Your task to perform on an android device: Open display settings Image 0: 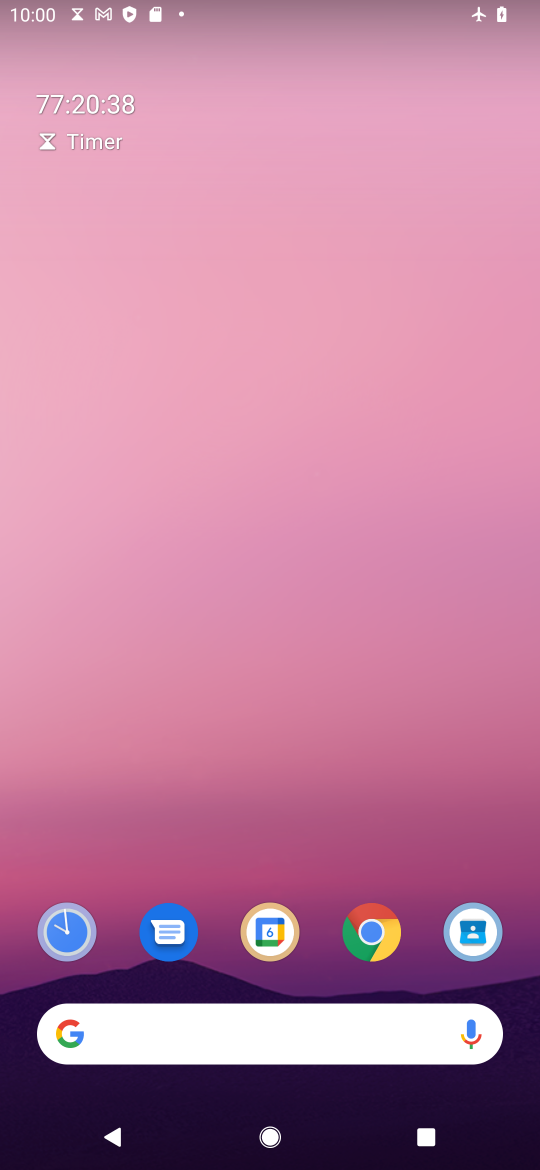
Step 0: drag from (298, 488) to (263, 4)
Your task to perform on an android device: Open display settings Image 1: 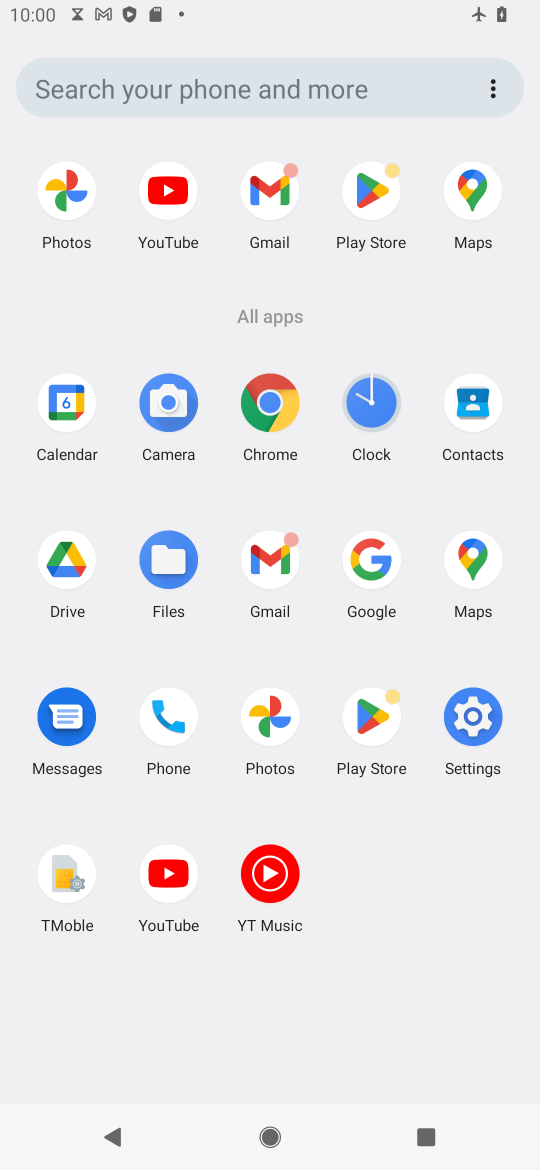
Step 1: click (486, 741)
Your task to perform on an android device: Open display settings Image 2: 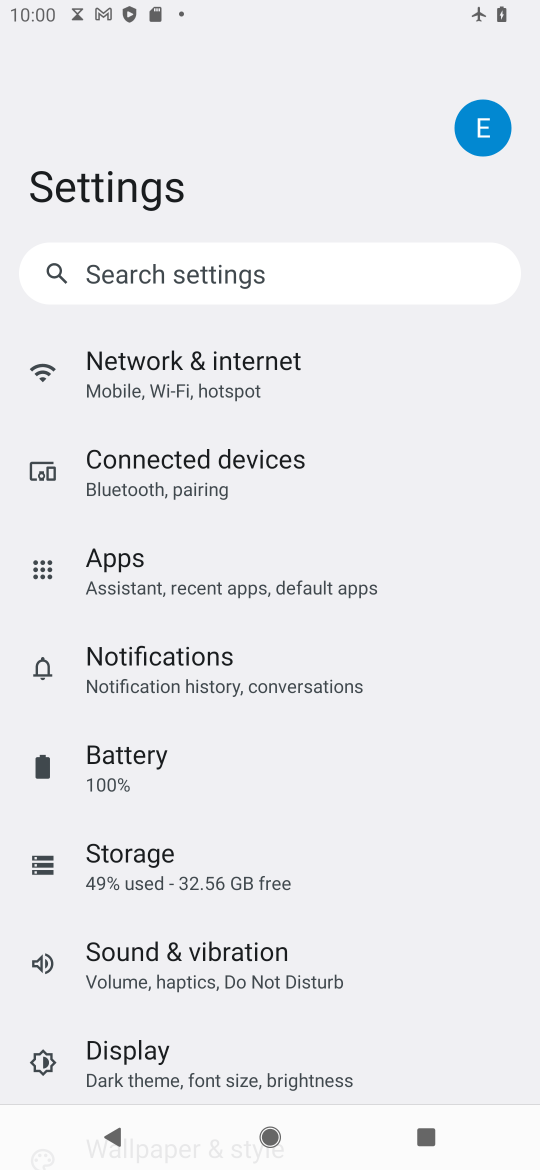
Step 2: click (248, 1060)
Your task to perform on an android device: Open display settings Image 3: 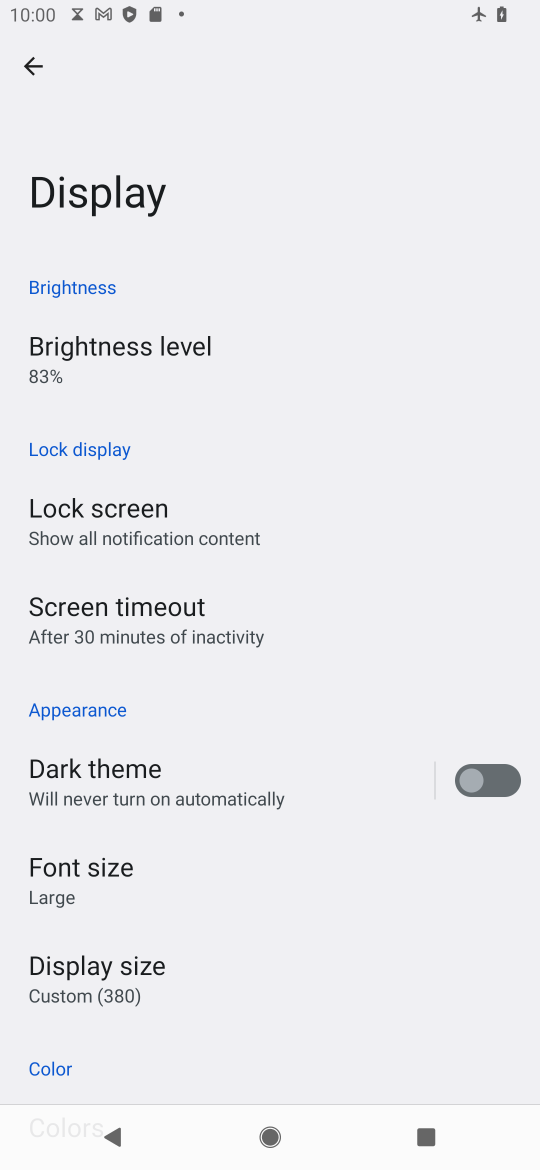
Step 3: task complete